Your task to perform on an android device: Open ESPN.com Image 0: 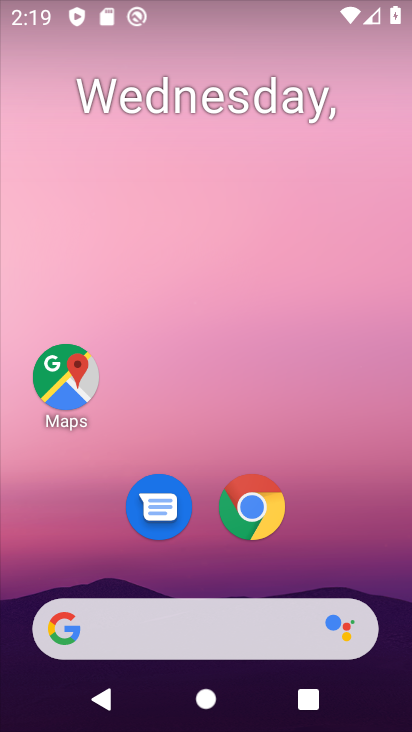
Step 0: click (267, 523)
Your task to perform on an android device: Open ESPN.com Image 1: 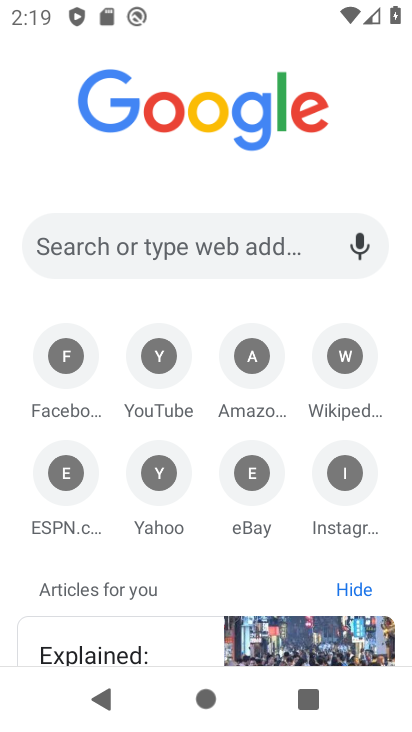
Step 1: click (75, 472)
Your task to perform on an android device: Open ESPN.com Image 2: 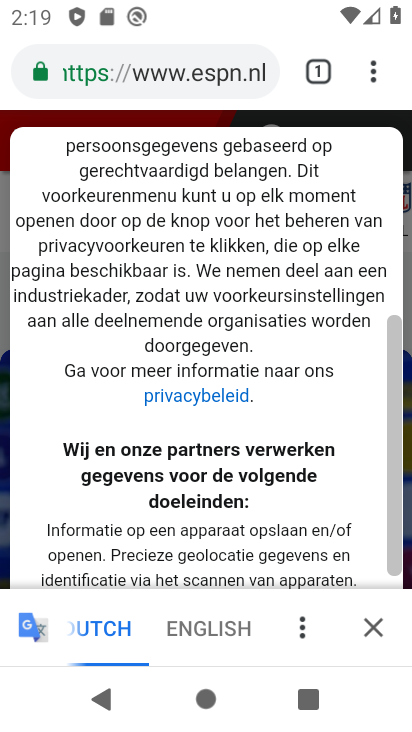
Step 2: task complete